Your task to perform on an android device: set default search engine in the chrome app Image 0: 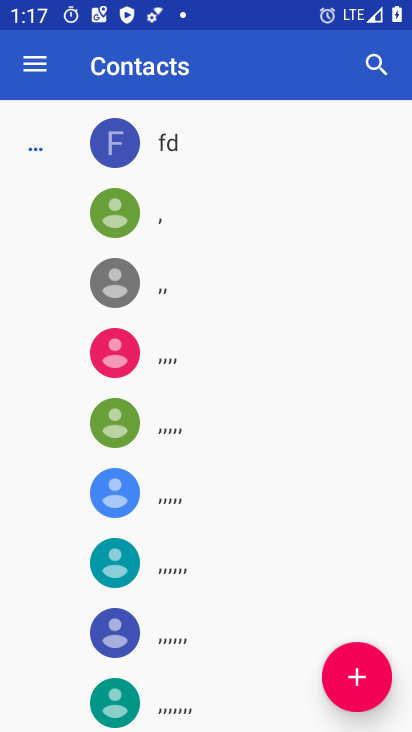
Step 0: press home button
Your task to perform on an android device: set default search engine in the chrome app Image 1: 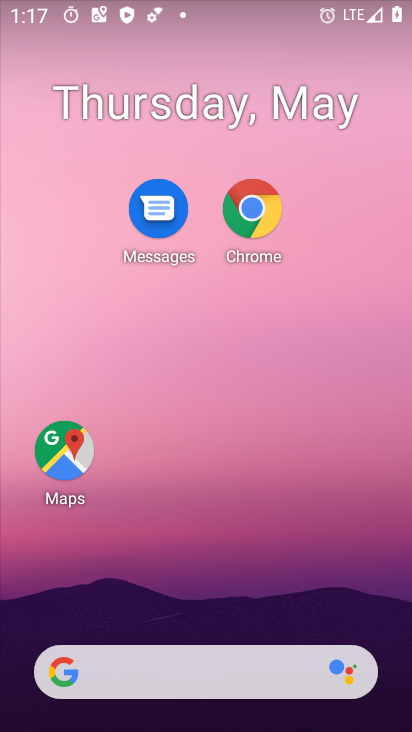
Step 1: click (240, 237)
Your task to perform on an android device: set default search engine in the chrome app Image 2: 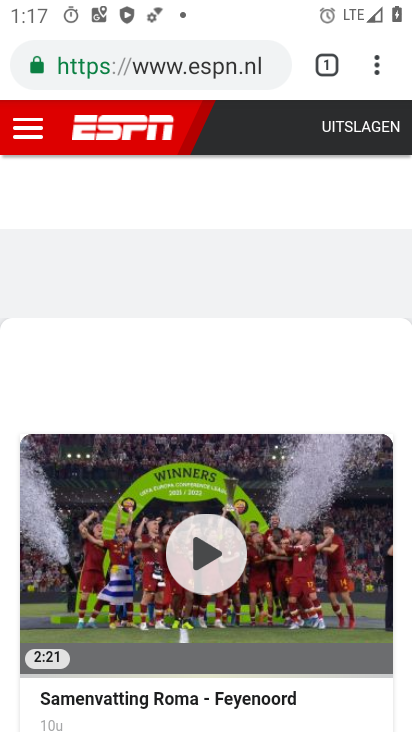
Step 2: click (378, 68)
Your task to perform on an android device: set default search engine in the chrome app Image 3: 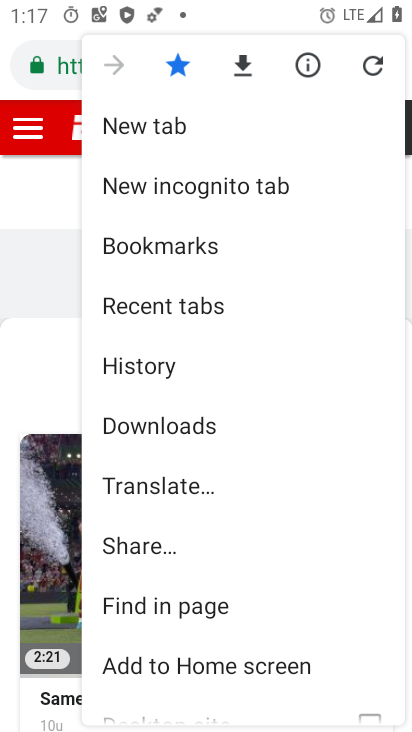
Step 3: drag from (143, 640) to (183, 357)
Your task to perform on an android device: set default search engine in the chrome app Image 4: 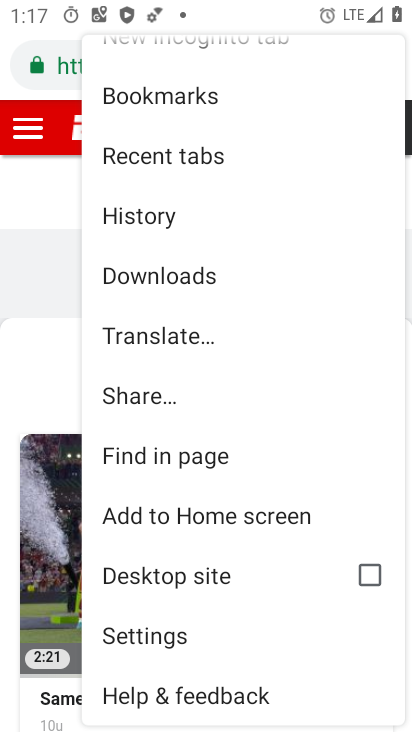
Step 4: click (138, 643)
Your task to perform on an android device: set default search engine in the chrome app Image 5: 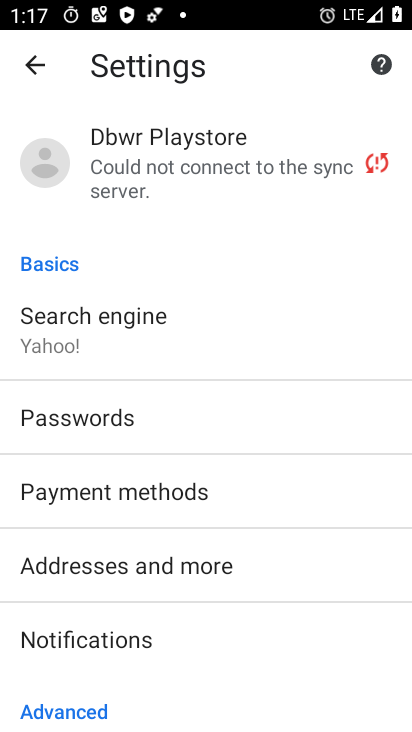
Step 5: click (106, 333)
Your task to perform on an android device: set default search engine in the chrome app Image 6: 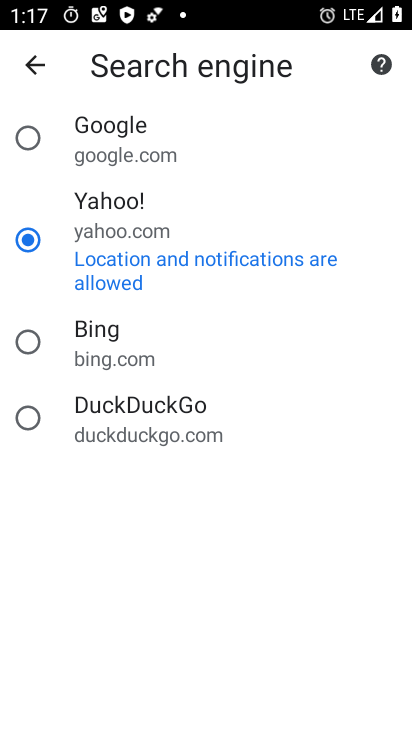
Step 6: click (24, 127)
Your task to perform on an android device: set default search engine in the chrome app Image 7: 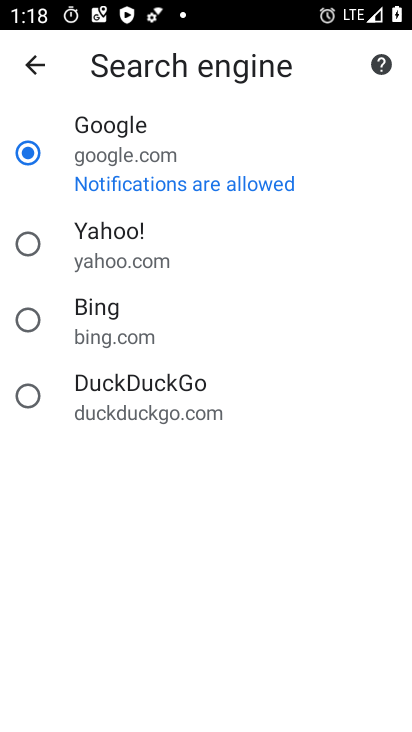
Step 7: task complete